Your task to perform on an android device: What's on my calendar tomorrow? Image 0: 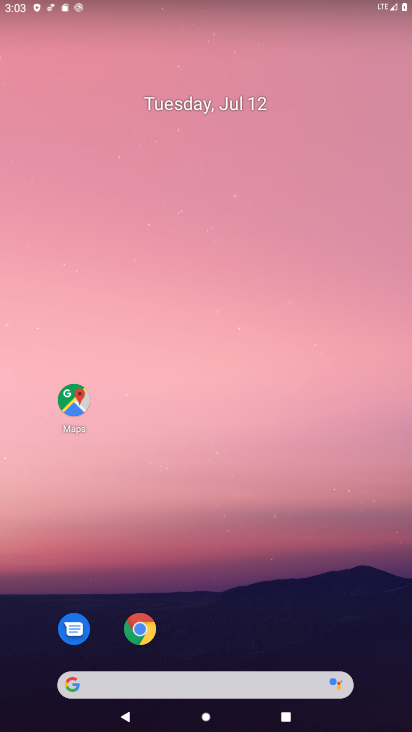
Step 0: drag from (301, 653) to (356, 198)
Your task to perform on an android device: What's on my calendar tomorrow? Image 1: 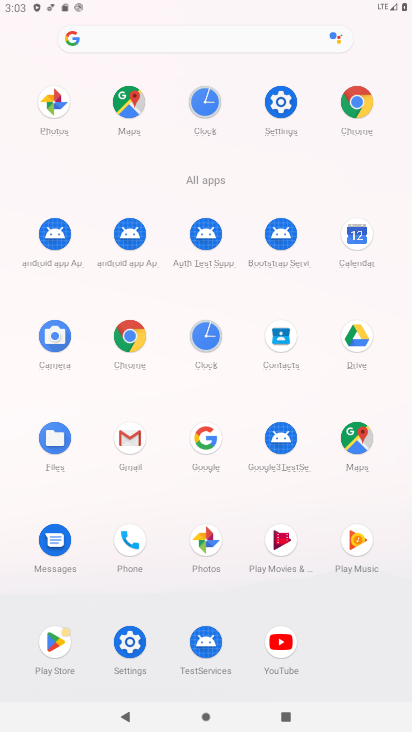
Step 1: click (356, 231)
Your task to perform on an android device: What's on my calendar tomorrow? Image 2: 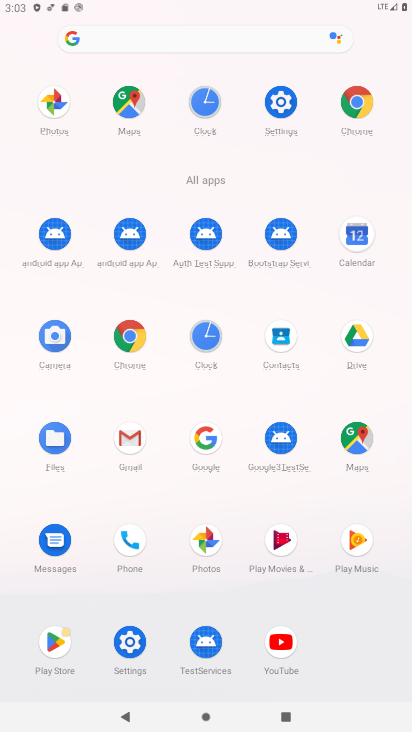
Step 2: click (357, 235)
Your task to perform on an android device: What's on my calendar tomorrow? Image 3: 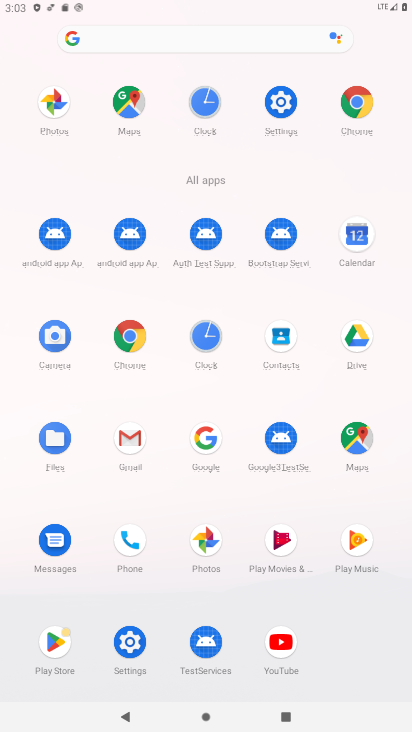
Step 3: click (356, 234)
Your task to perform on an android device: What's on my calendar tomorrow? Image 4: 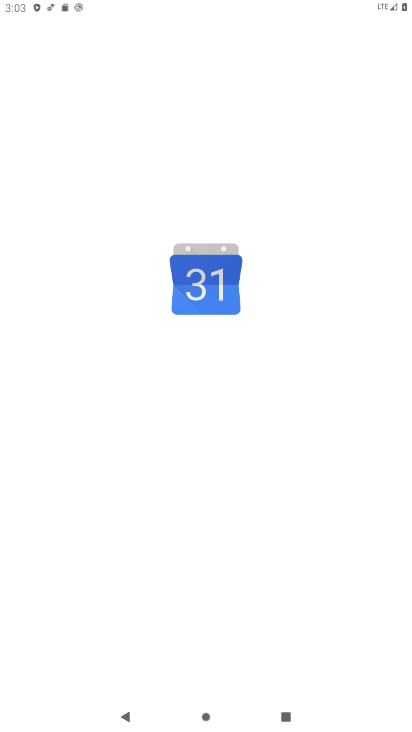
Step 4: click (355, 233)
Your task to perform on an android device: What's on my calendar tomorrow? Image 5: 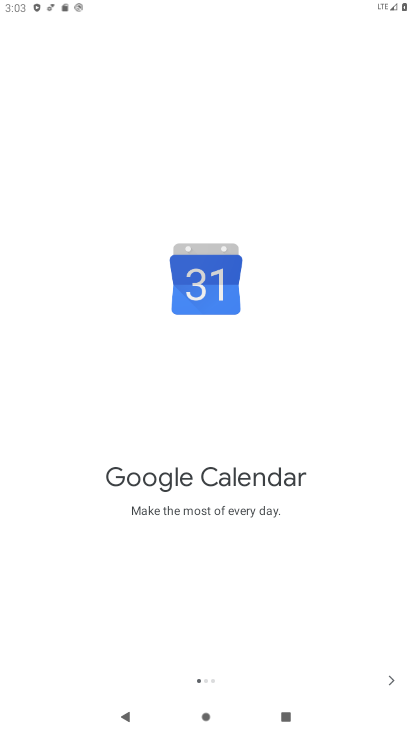
Step 5: click (385, 678)
Your task to perform on an android device: What's on my calendar tomorrow? Image 6: 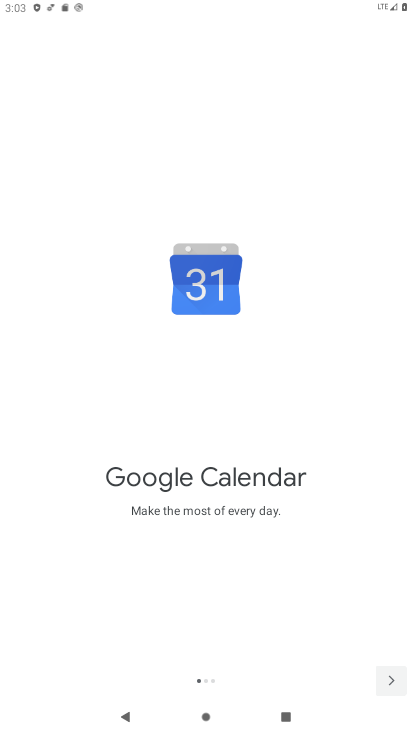
Step 6: click (385, 678)
Your task to perform on an android device: What's on my calendar tomorrow? Image 7: 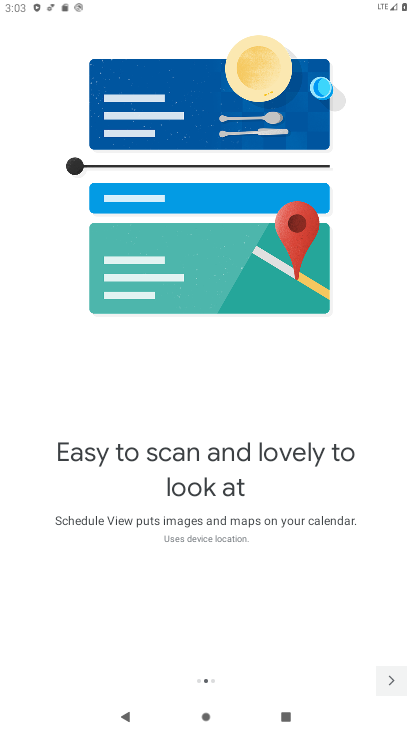
Step 7: click (387, 676)
Your task to perform on an android device: What's on my calendar tomorrow? Image 8: 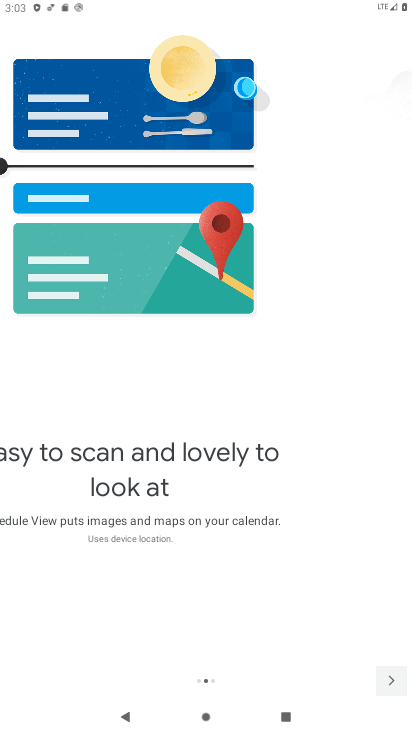
Step 8: click (387, 676)
Your task to perform on an android device: What's on my calendar tomorrow? Image 9: 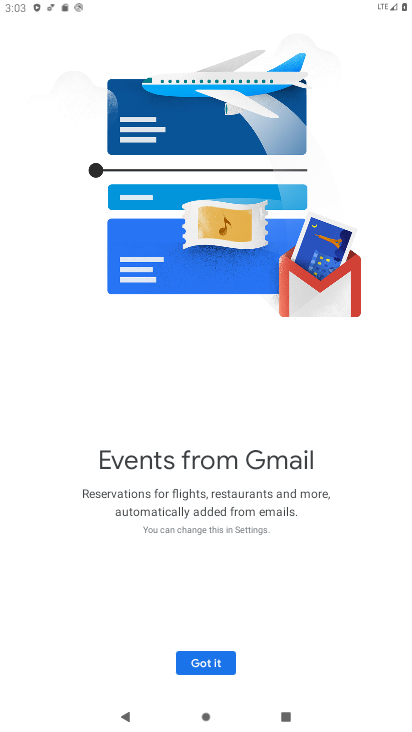
Step 9: click (389, 674)
Your task to perform on an android device: What's on my calendar tomorrow? Image 10: 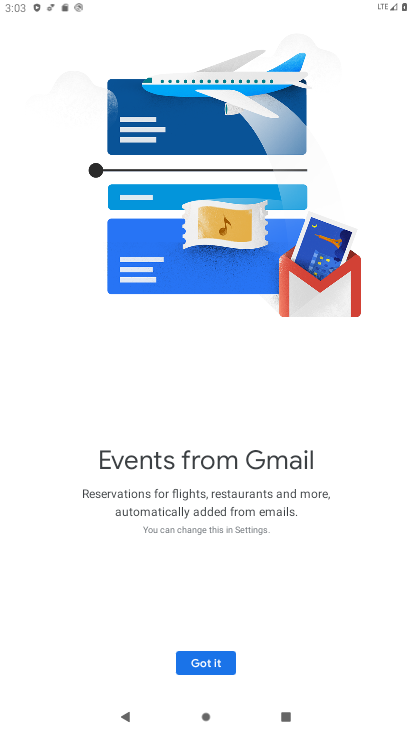
Step 10: click (392, 673)
Your task to perform on an android device: What's on my calendar tomorrow? Image 11: 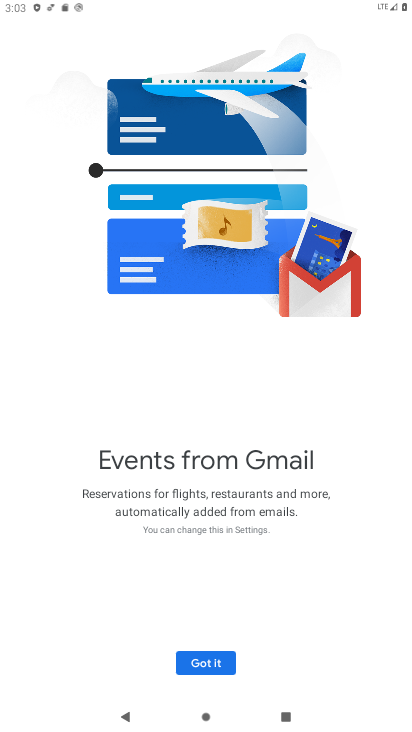
Step 11: click (392, 673)
Your task to perform on an android device: What's on my calendar tomorrow? Image 12: 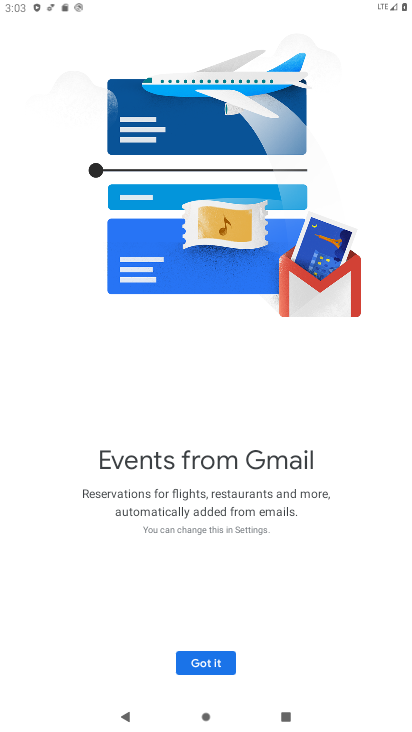
Step 12: click (210, 650)
Your task to perform on an android device: What's on my calendar tomorrow? Image 13: 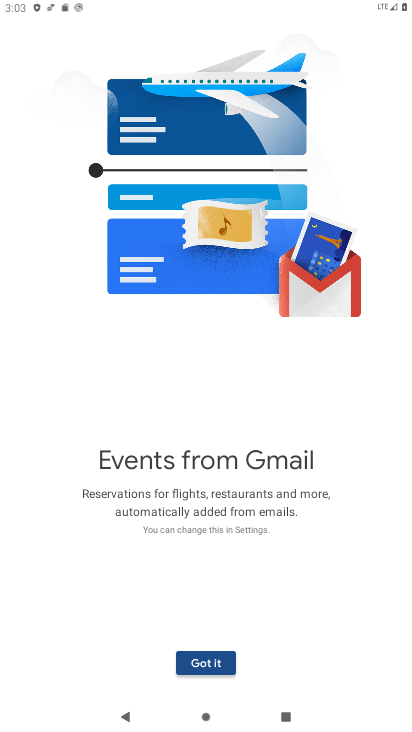
Step 13: click (210, 650)
Your task to perform on an android device: What's on my calendar tomorrow? Image 14: 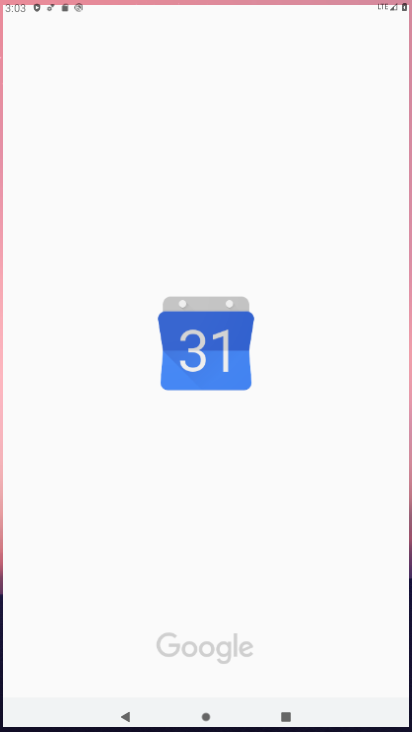
Step 14: click (212, 651)
Your task to perform on an android device: What's on my calendar tomorrow? Image 15: 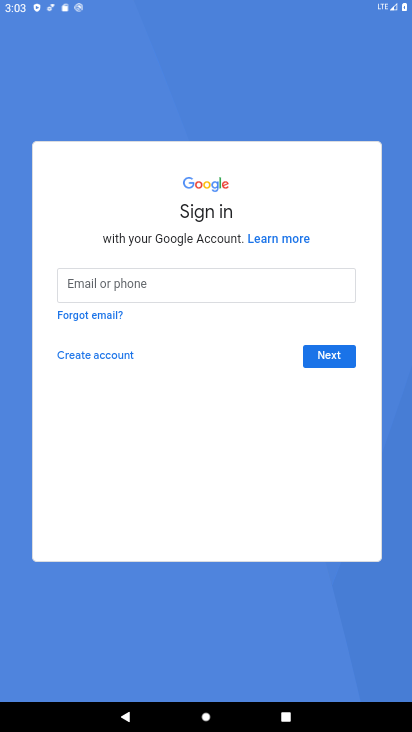
Step 15: task complete